Your task to perform on an android device: delete browsing data in the chrome app Image 0: 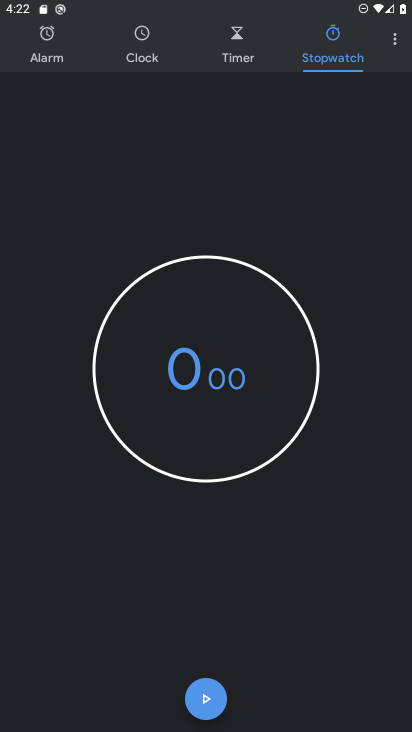
Step 0: press home button
Your task to perform on an android device: delete browsing data in the chrome app Image 1: 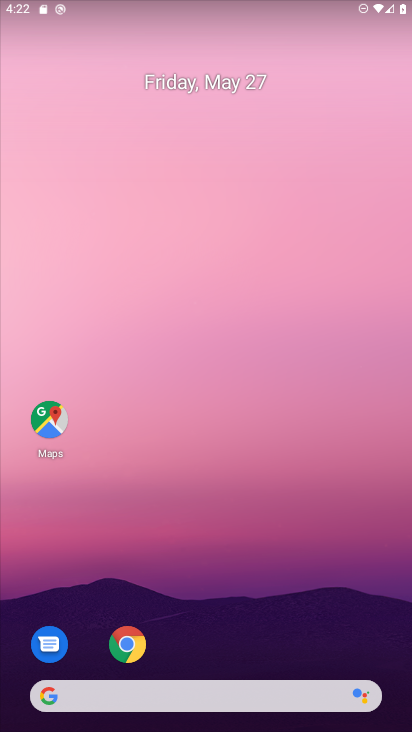
Step 1: click (134, 647)
Your task to perform on an android device: delete browsing data in the chrome app Image 2: 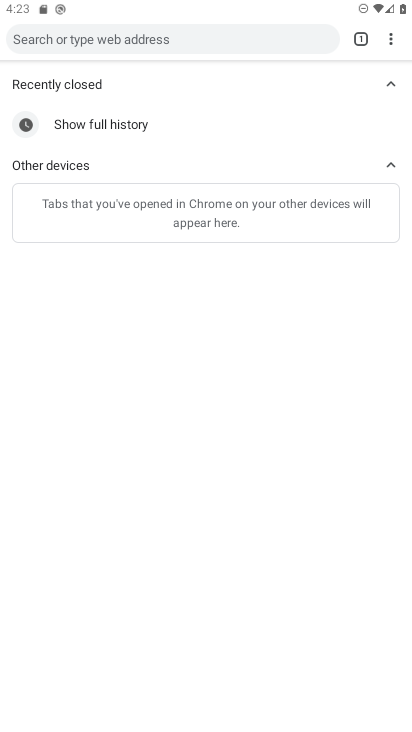
Step 2: click (391, 44)
Your task to perform on an android device: delete browsing data in the chrome app Image 3: 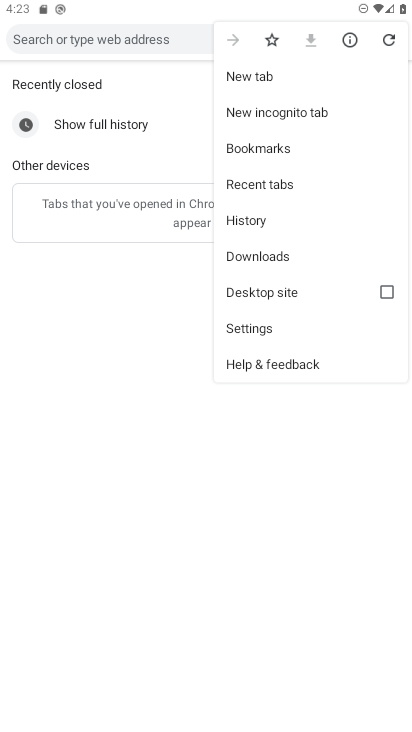
Step 3: click (252, 216)
Your task to perform on an android device: delete browsing data in the chrome app Image 4: 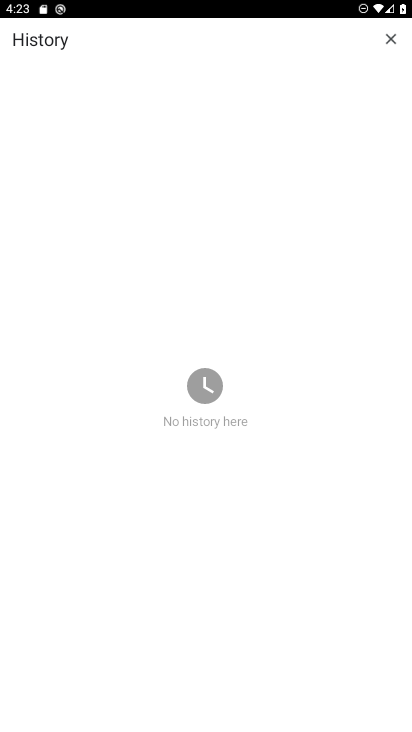
Step 4: task complete